Your task to perform on an android device: turn off data saver in the chrome app Image 0: 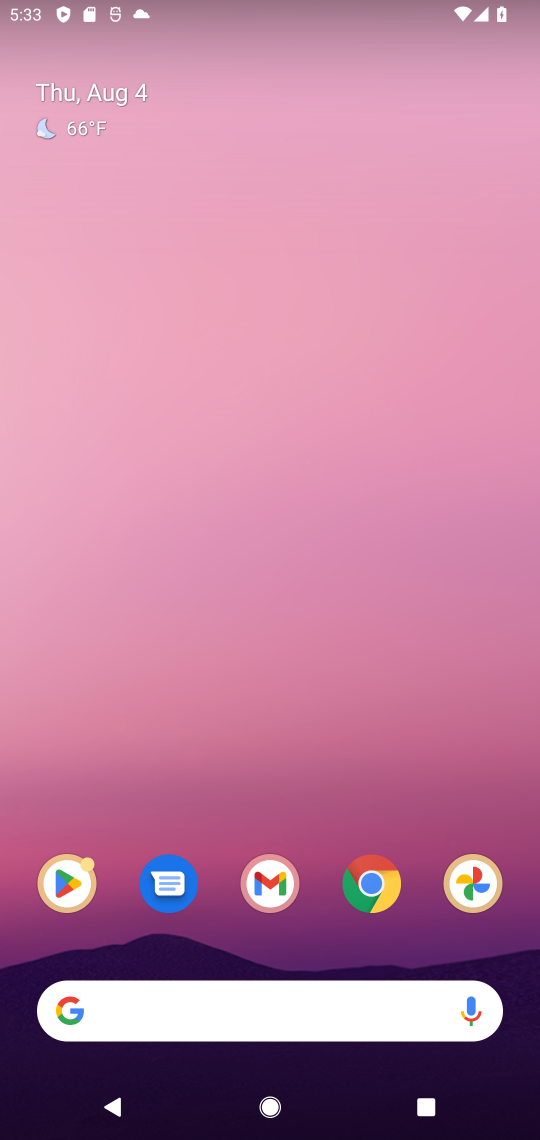
Step 0: click (387, 896)
Your task to perform on an android device: turn off data saver in the chrome app Image 1: 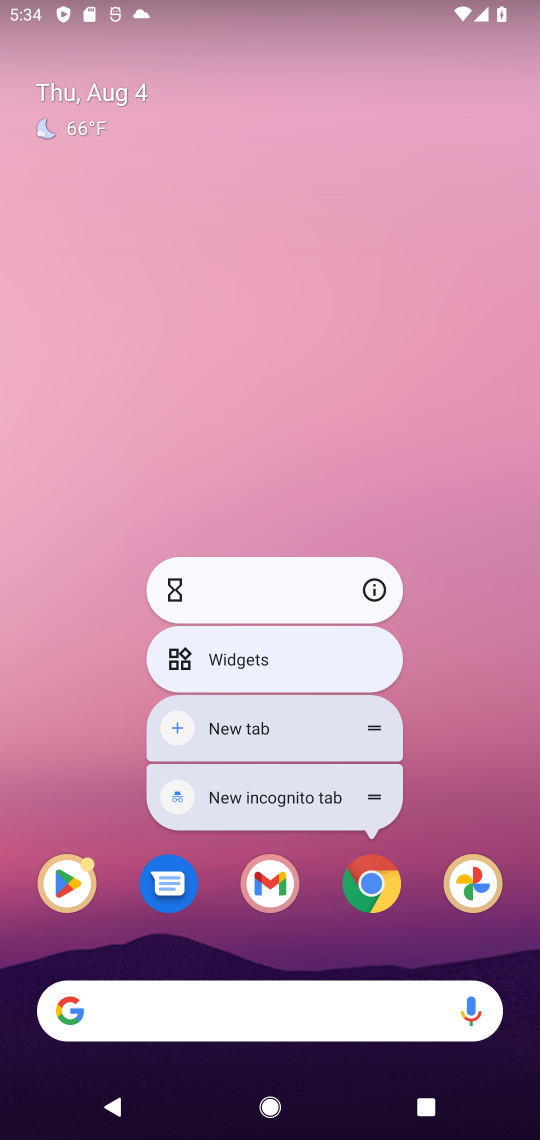
Step 1: click (387, 896)
Your task to perform on an android device: turn off data saver in the chrome app Image 2: 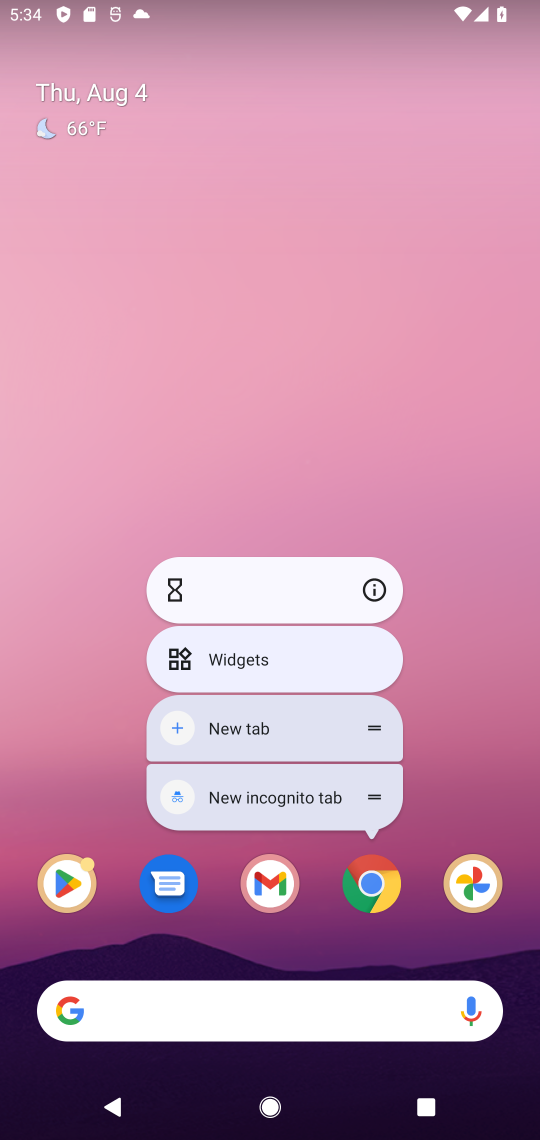
Step 2: click (387, 896)
Your task to perform on an android device: turn off data saver in the chrome app Image 3: 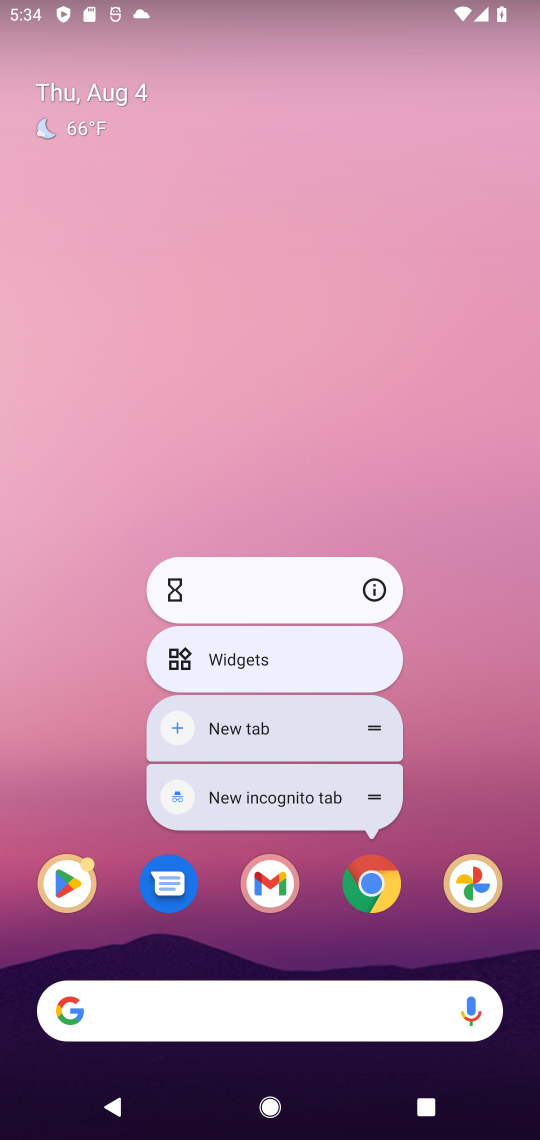
Step 3: click (387, 896)
Your task to perform on an android device: turn off data saver in the chrome app Image 4: 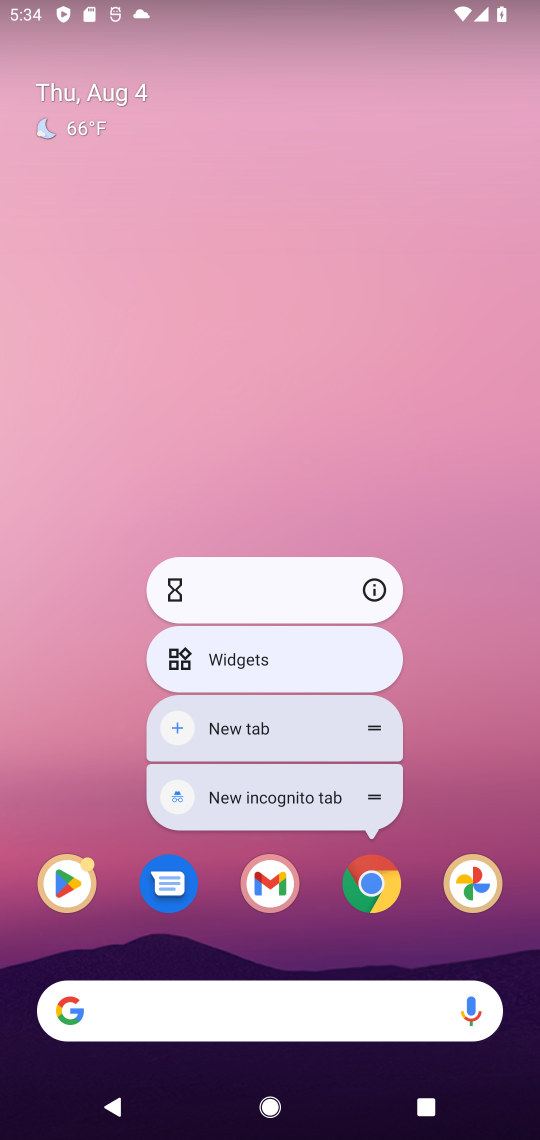
Step 4: click (387, 896)
Your task to perform on an android device: turn off data saver in the chrome app Image 5: 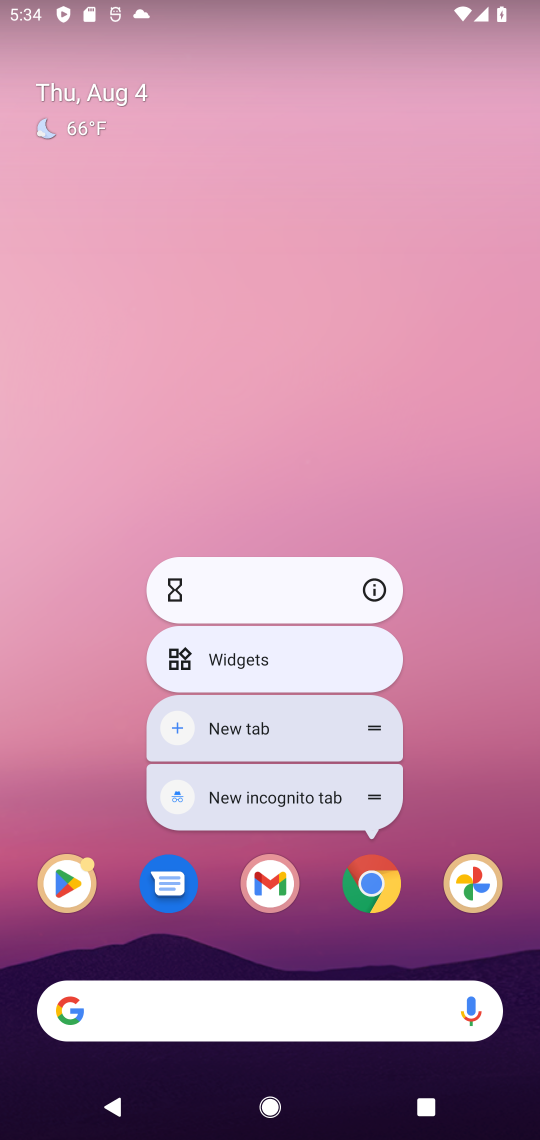
Step 5: click (384, 893)
Your task to perform on an android device: turn off data saver in the chrome app Image 6: 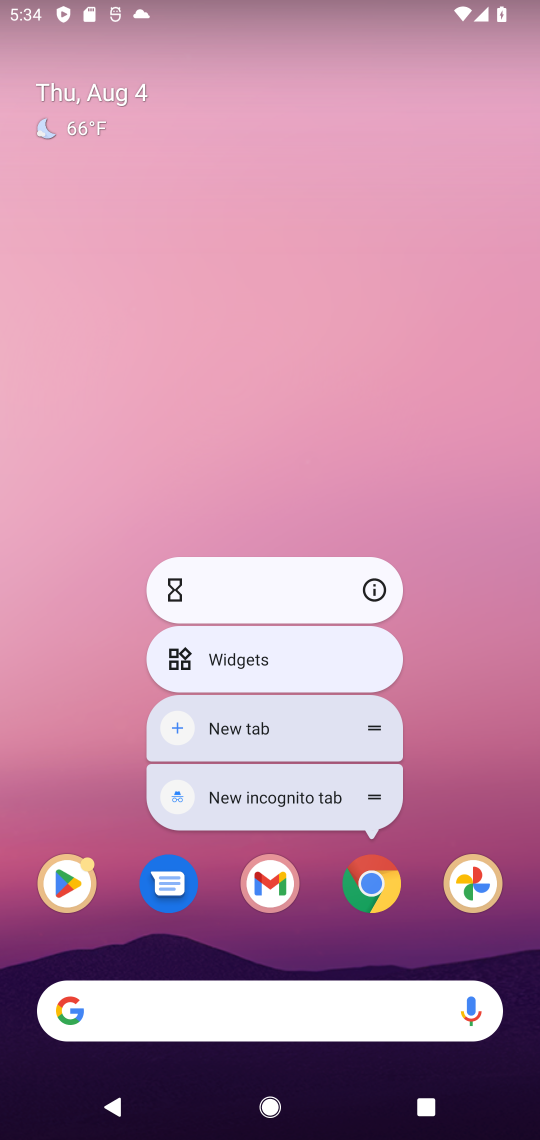
Step 6: click (385, 903)
Your task to perform on an android device: turn off data saver in the chrome app Image 7: 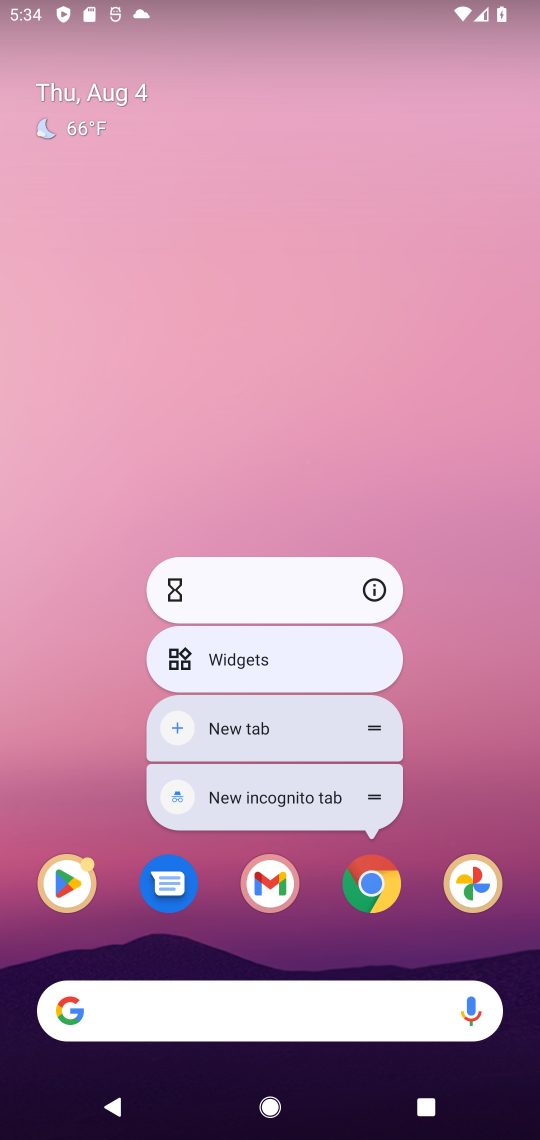
Step 7: click (393, 903)
Your task to perform on an android device: turn off data saver in the chrome app Image 8: 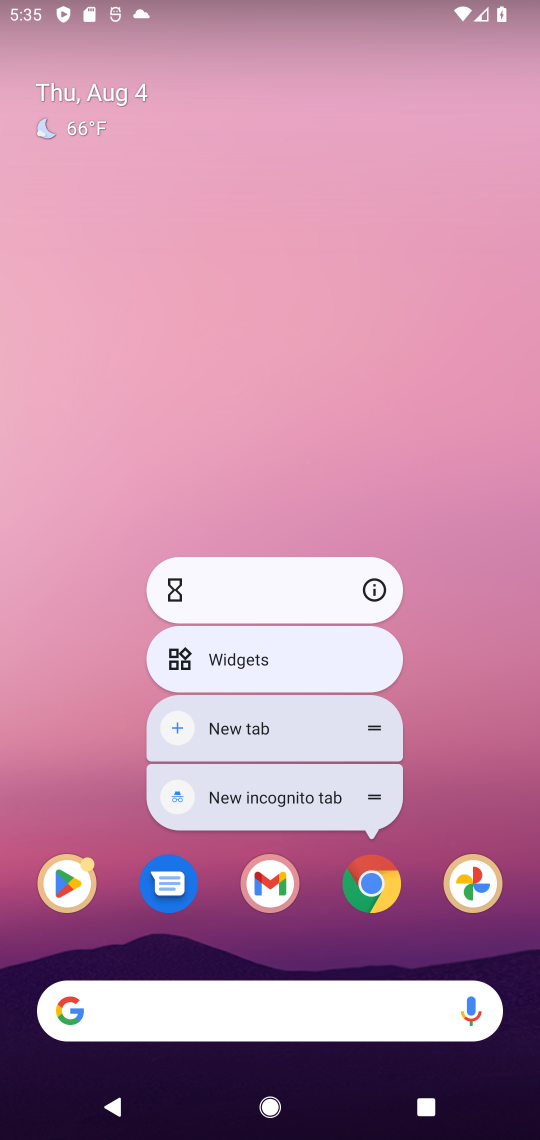
Step 8: click (349, 897)
Your task to perform on an android device: turn off data saver in the chrome app Image 9: 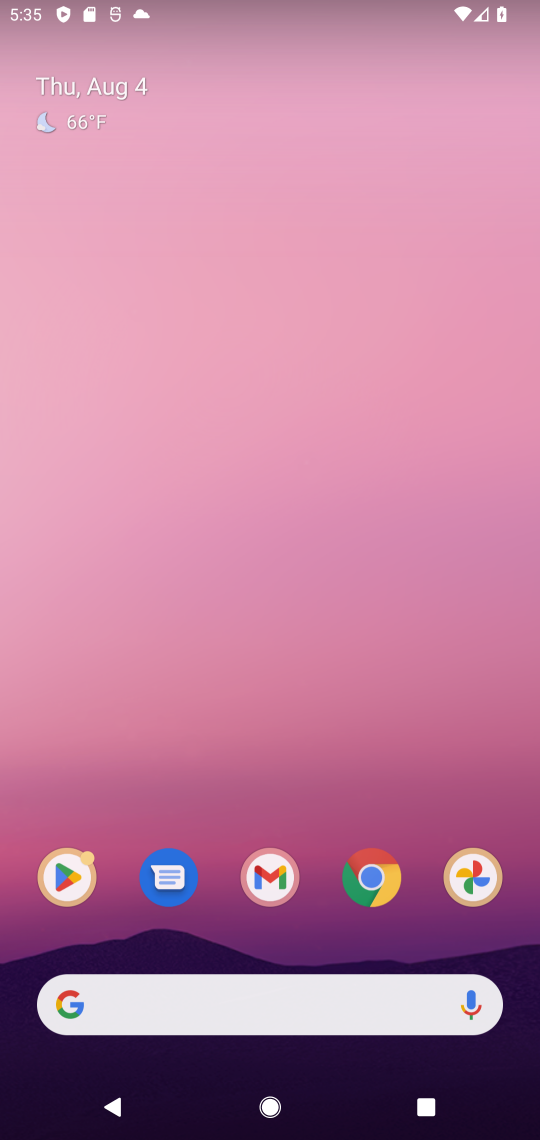
Step 9: click (369, 859)
Your task to perform on an android device: turn off data saver in the chrome app Image 10: 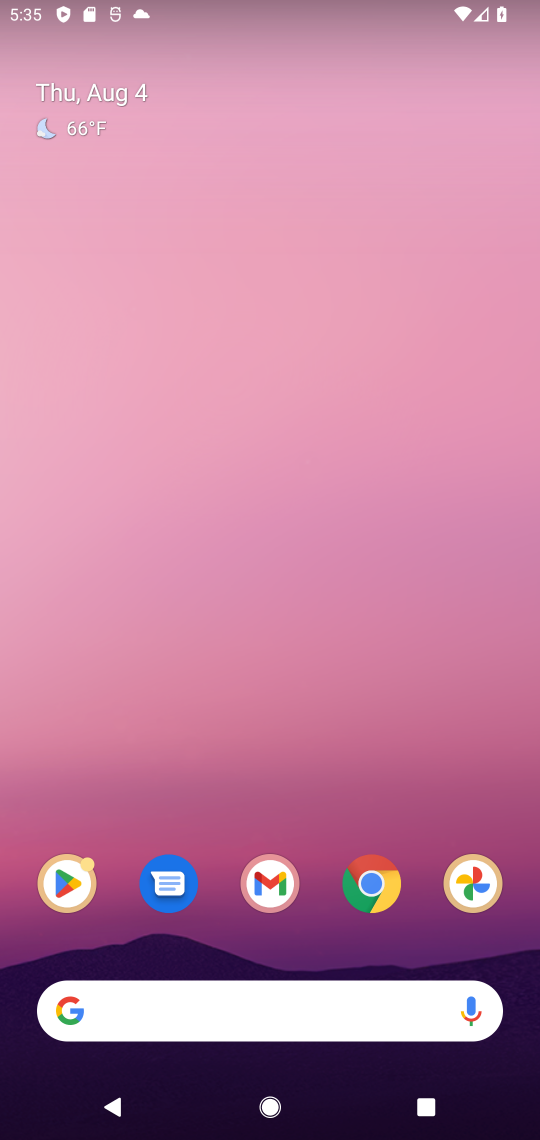
Step 10: click (361, 891)
Your task to perform on an android device: turn off data saver in the chrome app Image 11: 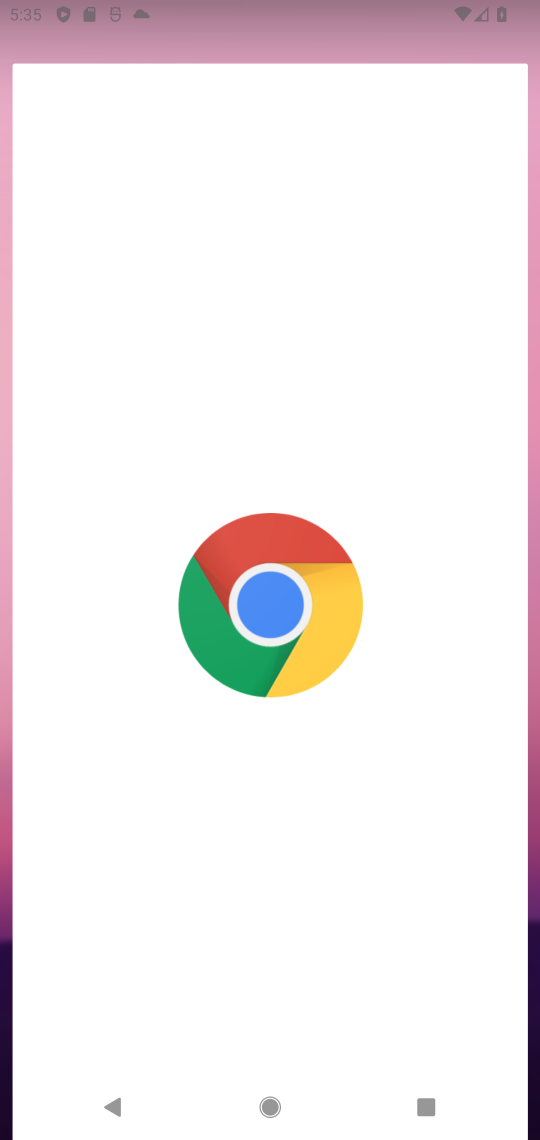
Step 11: click (361, 891)
Your task to perform on an android device: turn off data saver in the chrome app Image 12: 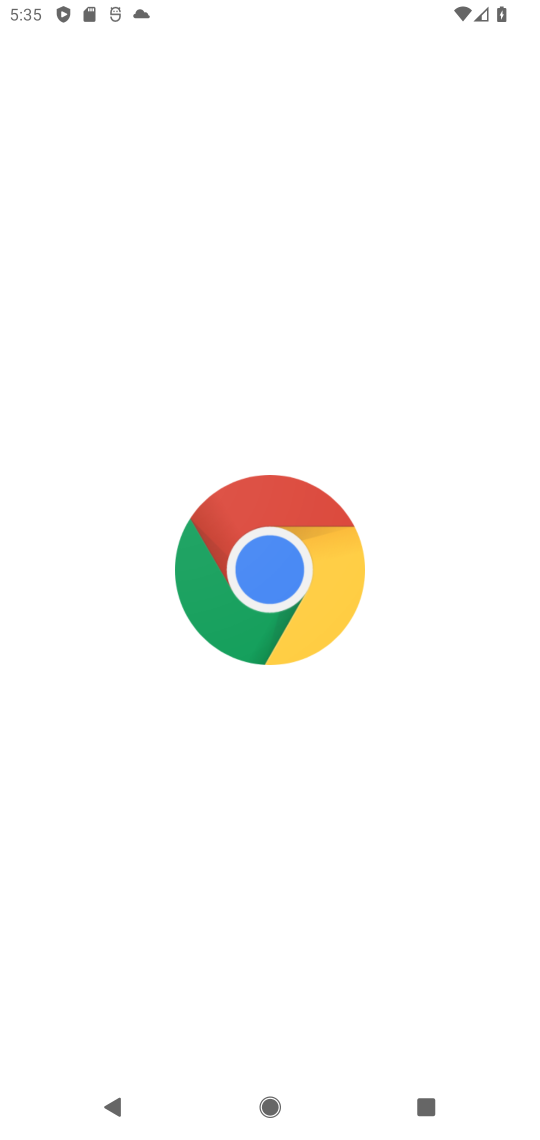
Step 12: click (361, 891)
Your task to perform on an android device: turn off data saver in the chrome app Image 13: 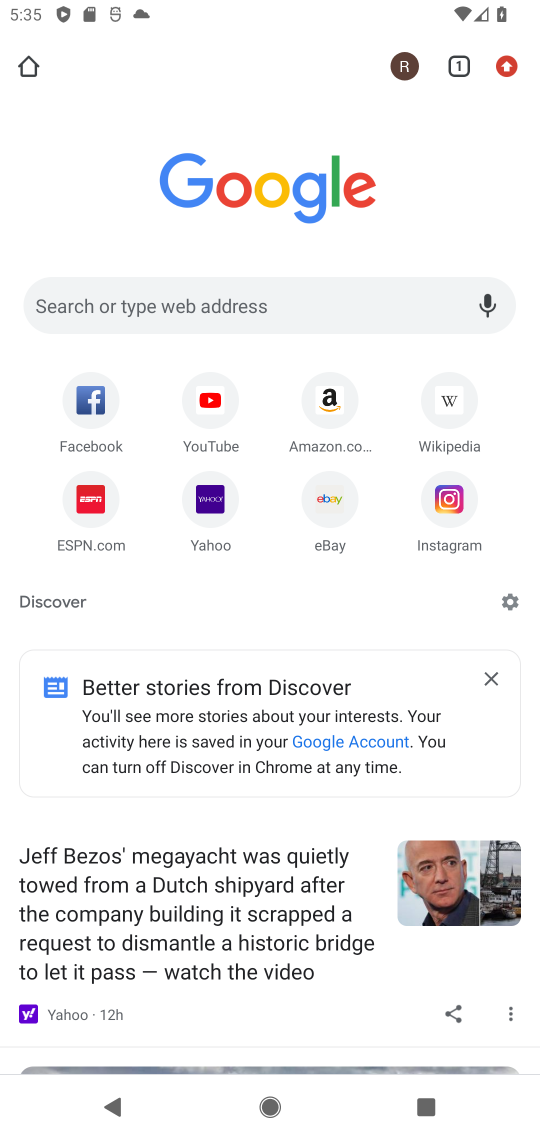
Step 13: click (510, 63)
Your task to perform on an android device: turn off data saver in the chrome app Image 14: 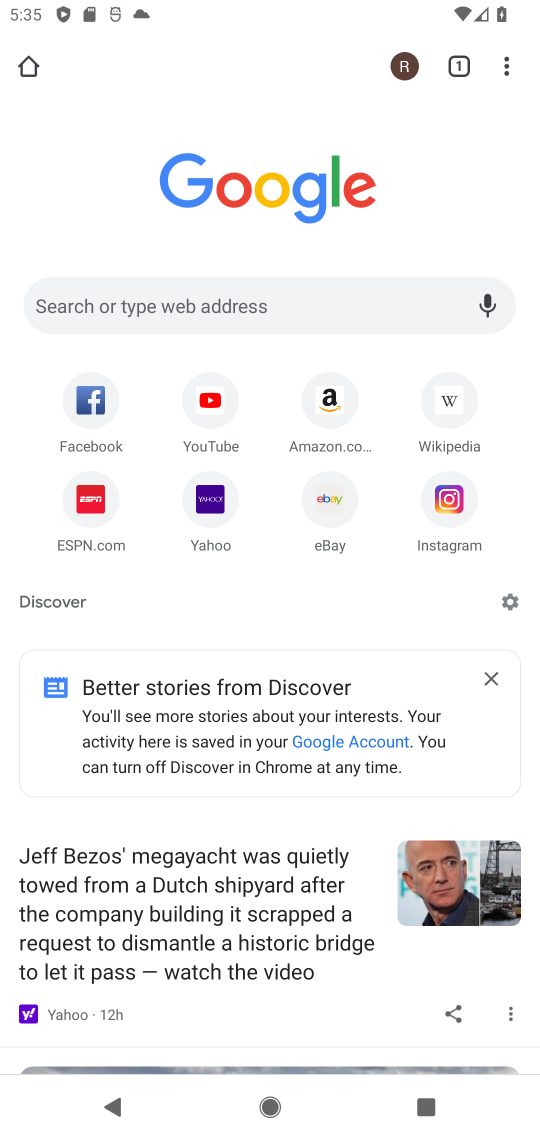
Step 14: click (510, 63)
Your task to perform on an android device: turn off data saver in the chrome app Image 15: 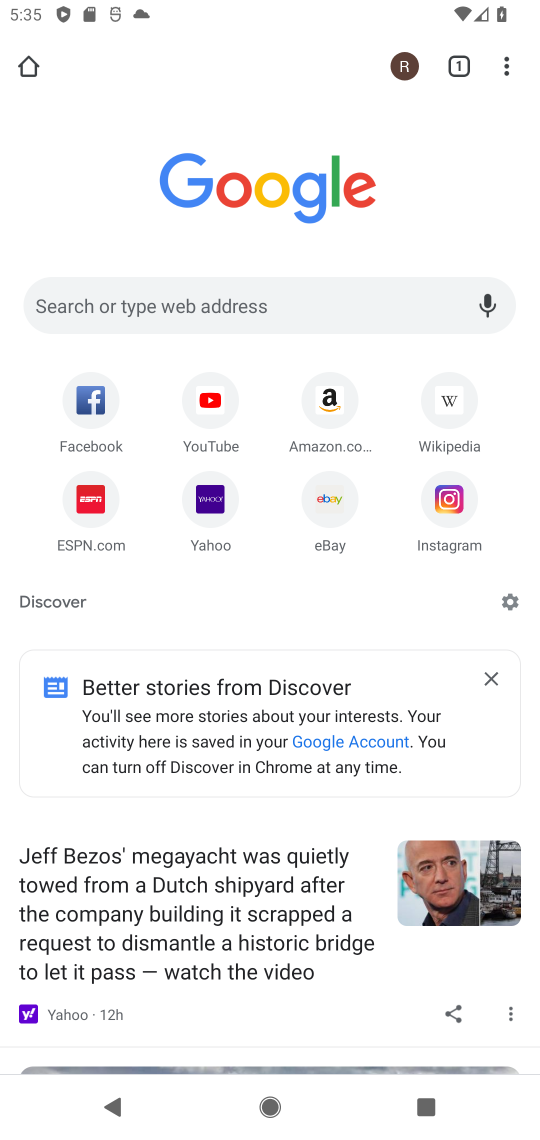
Step 15: click (495, 52)
Your task to perform on an android device: turn off data saver in the chrome app Image 16: 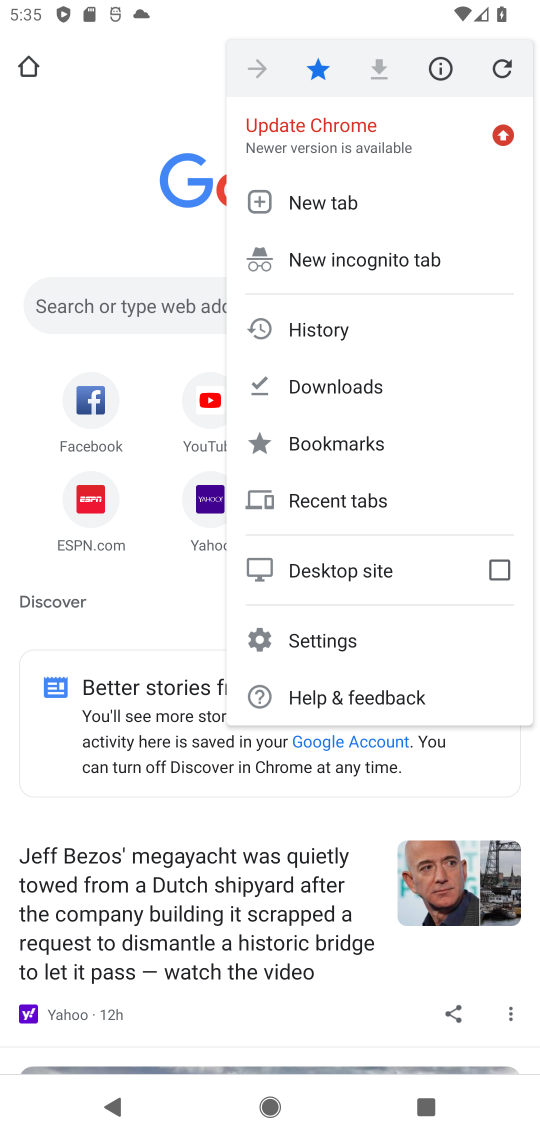
Step 16: click (354, 638)
Your task to perform on an android device: turn off data saver in the chrome app Image 17: 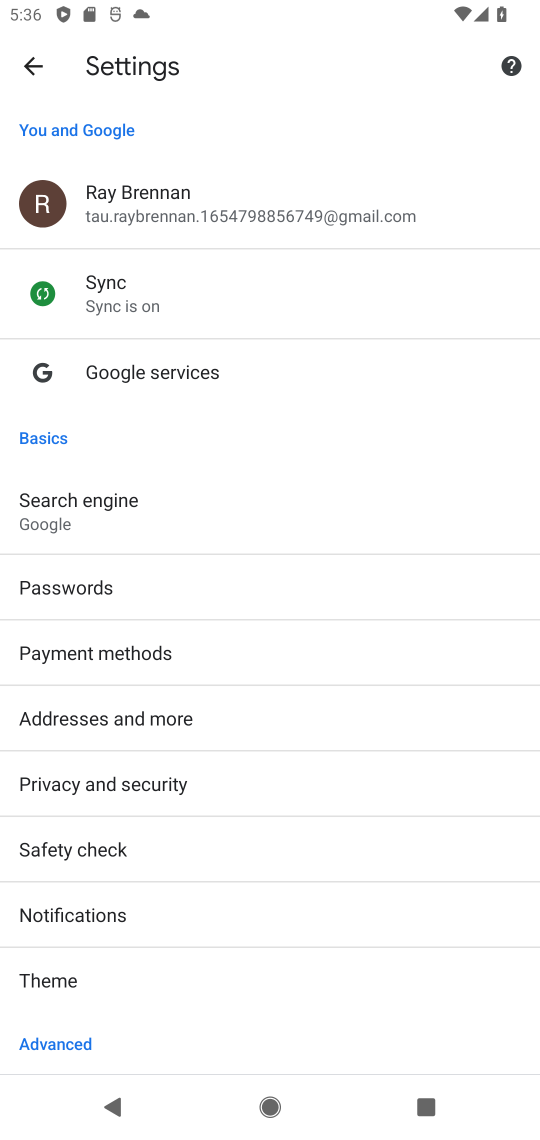
Step 17: drag from (210, 923) to (535, 174)
Your task to perform on an android device: turn off data saver in the chrome app Image 18: 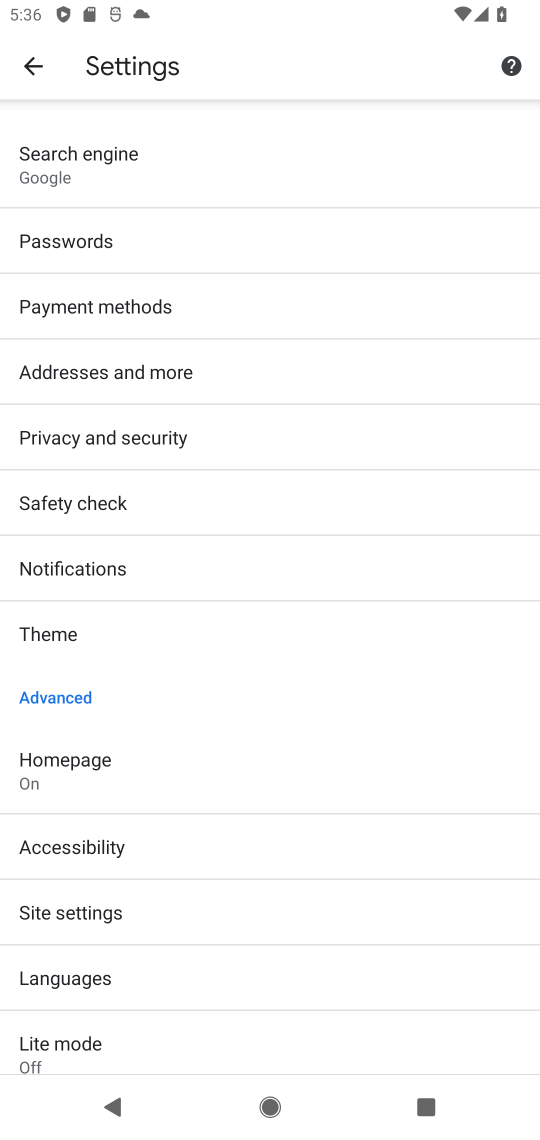
Step 18: click (190, 1042)
Your task to perform on an android device: turn off data saver in the chrome app Image 19: 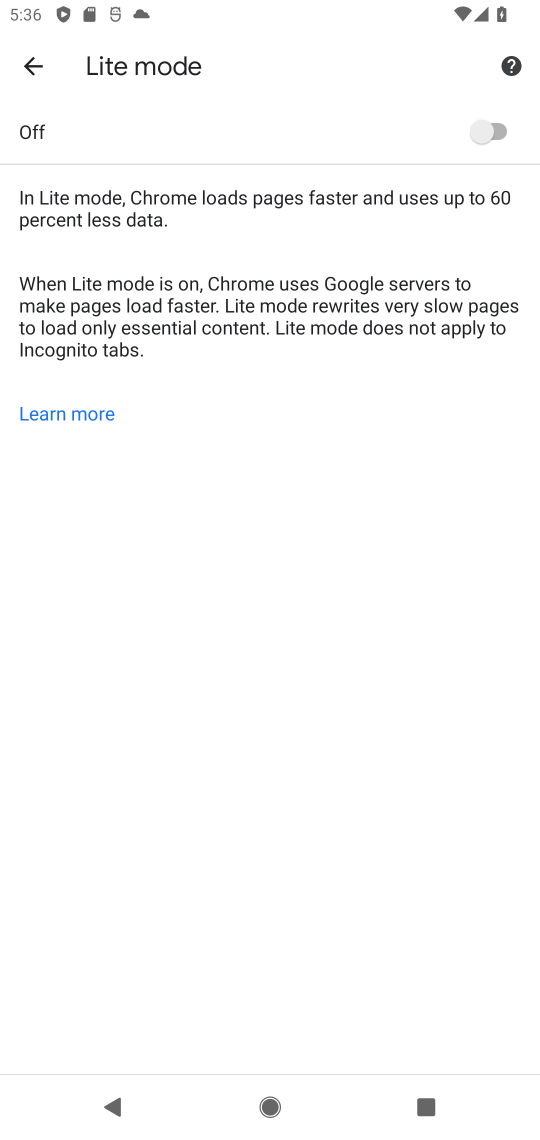
Step 19: task complete